Your task to perform on an android device: see tabs open on other devices in the chrome app Image 0: 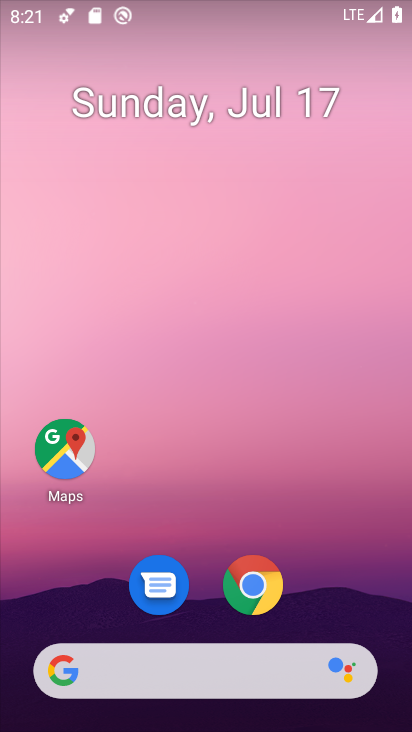
Step 0: click (249, 576)
Your task to perform on an android device: see tabs open on other devices in the chrome app Image 1: 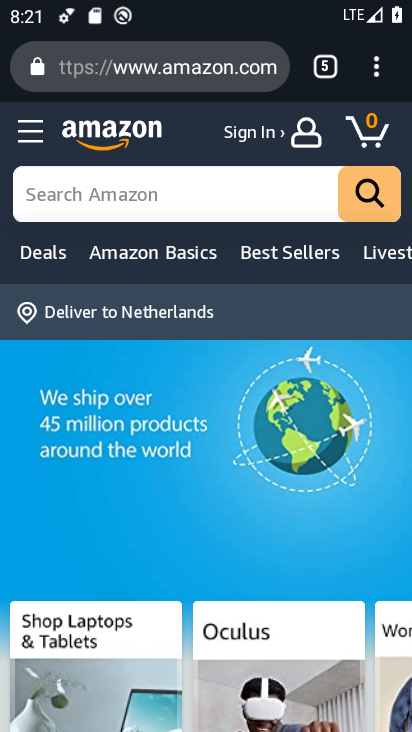
Step 1: click (370, 66)
Your task to perform on an android device: see tabs open on other devices in the chrome app Image 2: 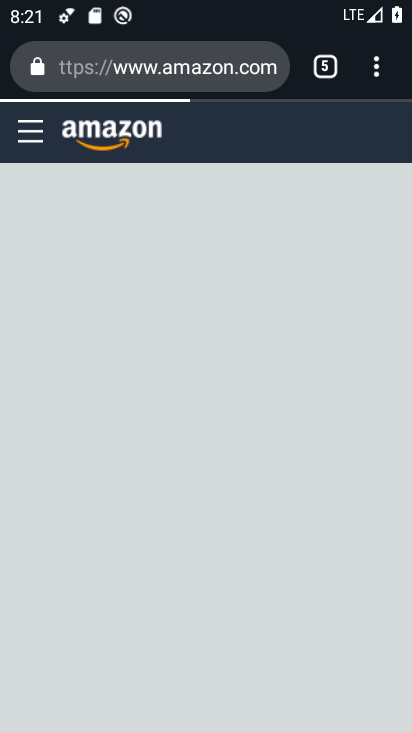
Step 2: click (371, 69)
Your task to perform on an android device: see tabs open on other devices in the chrome app Image 3: 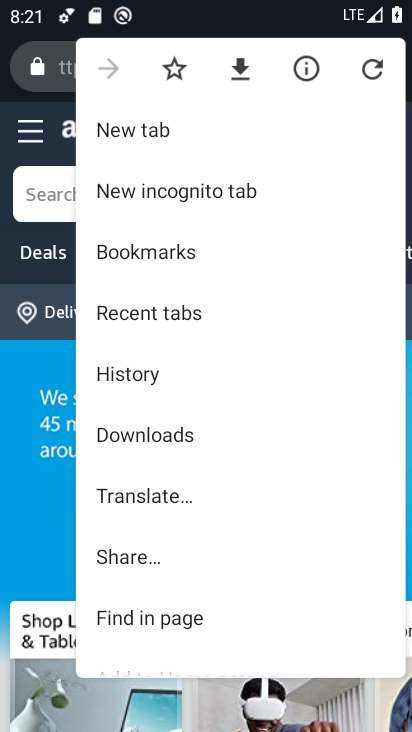
Step 3: click (160, 317)
Your task to perform on an android device: see tabs open on other devices in the chrome app Image 4: 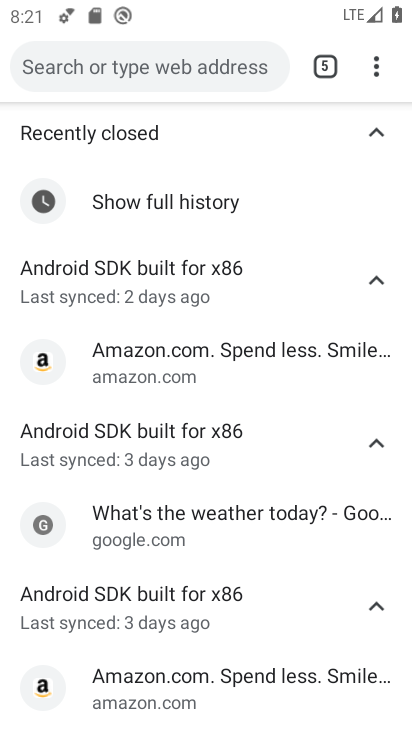
Step 4: task complete